Your task to perform on an android device: Go to Maps Image 0: 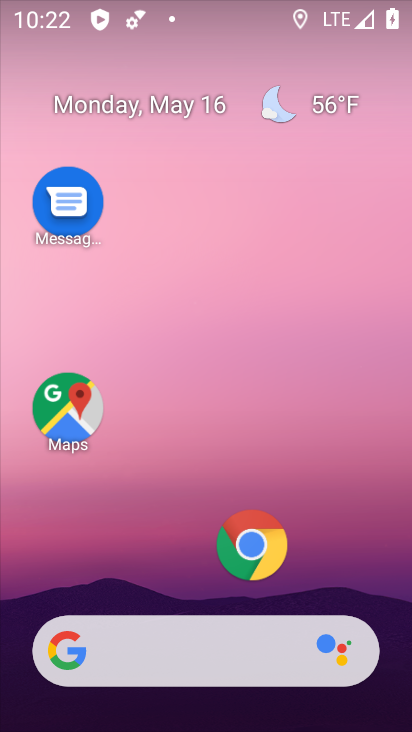
Step 0: click (75, 401)
Your task to perform on an android device: Go to Maps Image 1: 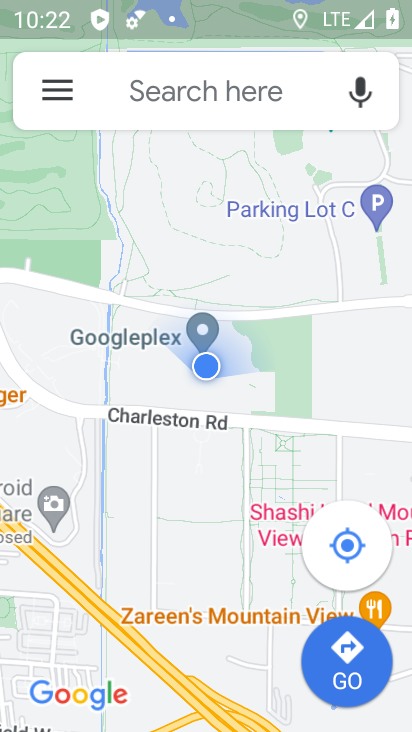
Step 1: task complete